Your task to perform on an android device: Search for Italian restaurants on Maps Image 0: 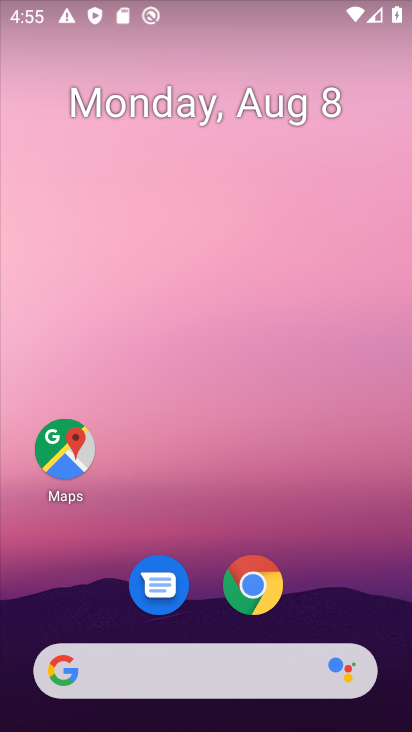
Step 0: click (67, 445)
Your task to perform on an android device: Search for Italian restaurants on Maps Image 1: 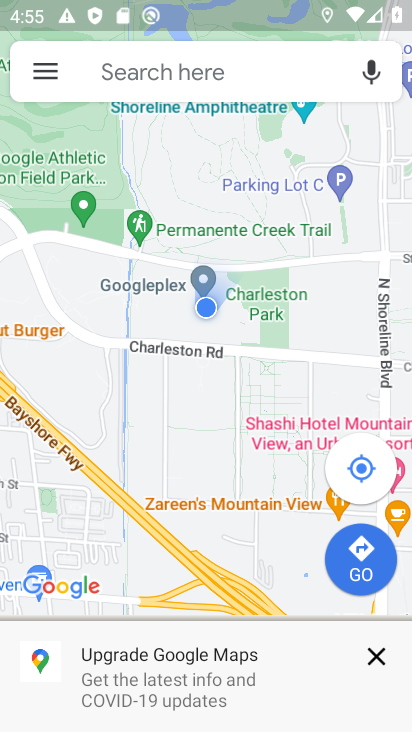
Step 1: click (218, 70)
Your task to perform on an android device: Search for Italian restaurants on Maps Image 2: 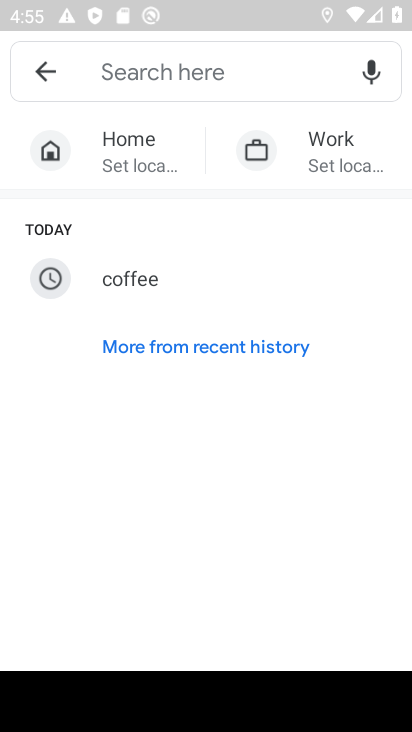
Step 2: type "italian restaurants"
Your task to perform on an android device: Search for Italian restaurants on Maps Image 3: 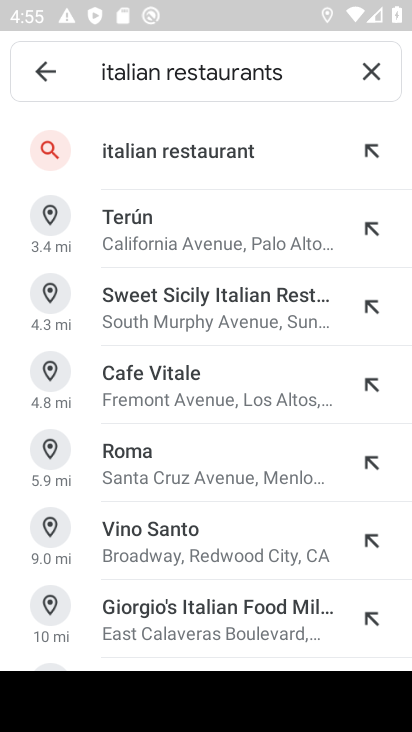
Step 3: click (230, 143)
Your task to perform on an android device: Search for Italian restaurants on Maps Image 4: 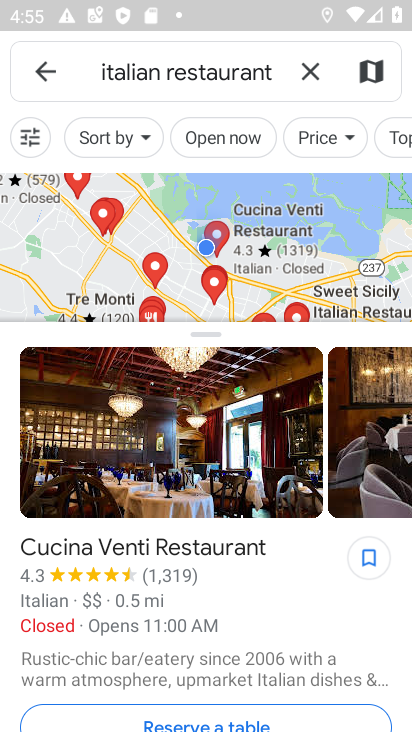
Step 4: task complete